Your task to perform on an android device: Turn on the flashlight Image 0: 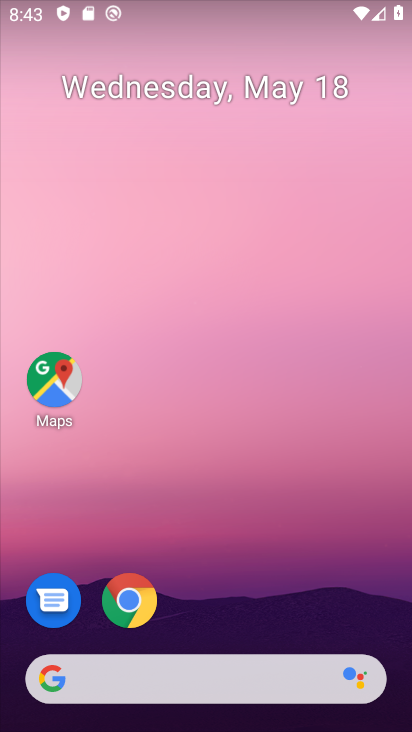
Step 0: drag from (31, 621) to (217, 164)
Your task to perform on an android device: Turn on the flashlight Image 1: 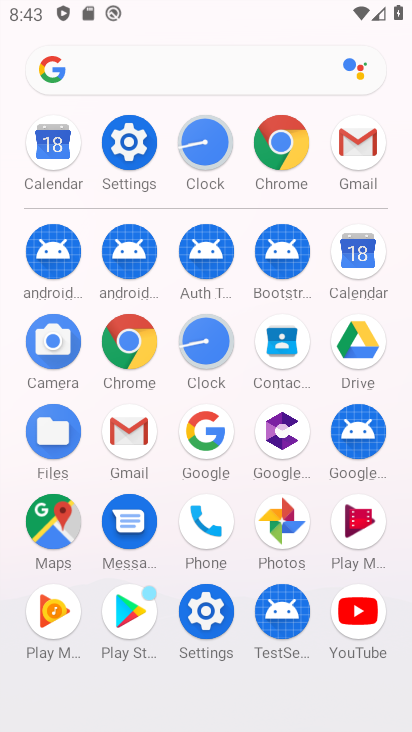
Step 1: click (200, 603)
Your task to perform on an android device: Turn on the flashlight Image 2: 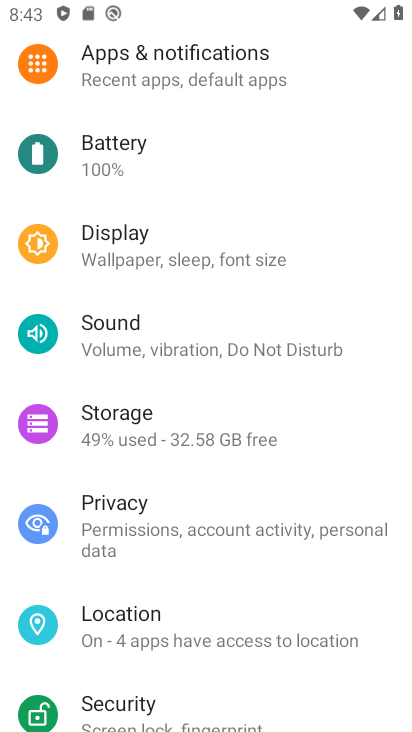
Step 2: task complete